Your task to perform on an android device: Find coffee shops on Maps Image 0: 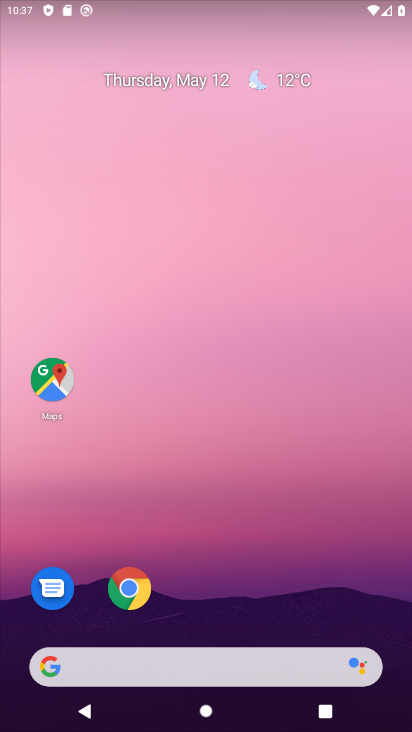
Step 0: click (50, 380)
Your task to perform on an android device: Find coffee shops on Maps Image 1: 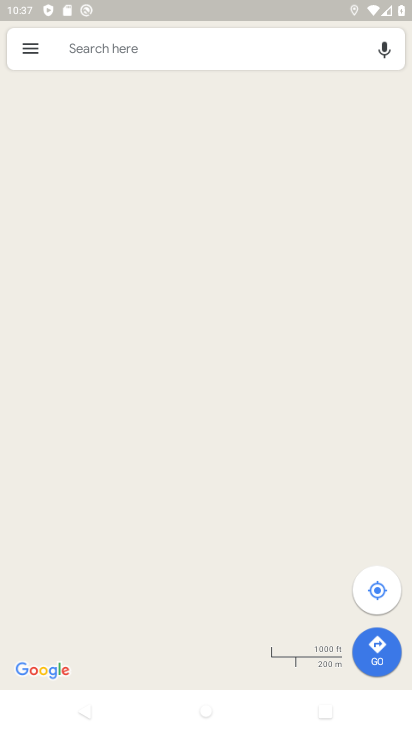
Step 1: click (179, 57)
Your task to perform on an android device: Find coffee shops on Maps Image 2: 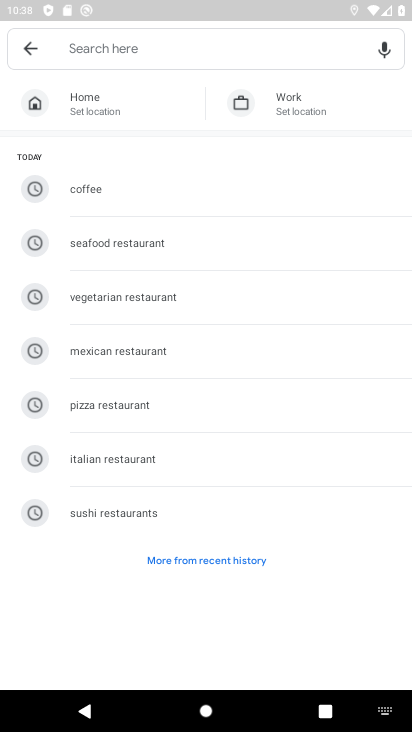
Step 2: type "coffee shops"
Your task to perform on an android device: Find coffee shops on Maps Image 3: 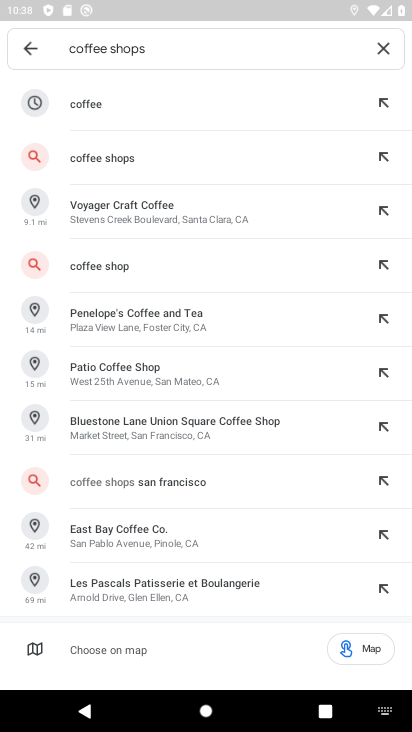
Step 3: click (123, 162)
Your task to perform on an android device: Find coffee shops on Maps Image 4: 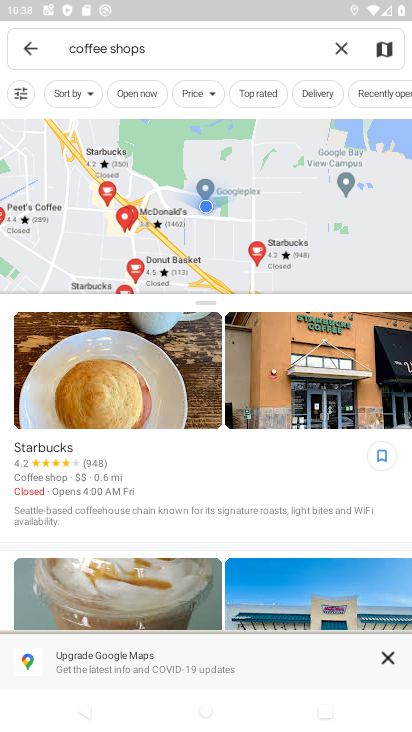
Step 4: task complete